Your task to perform on an android device: set the timer Image 0: 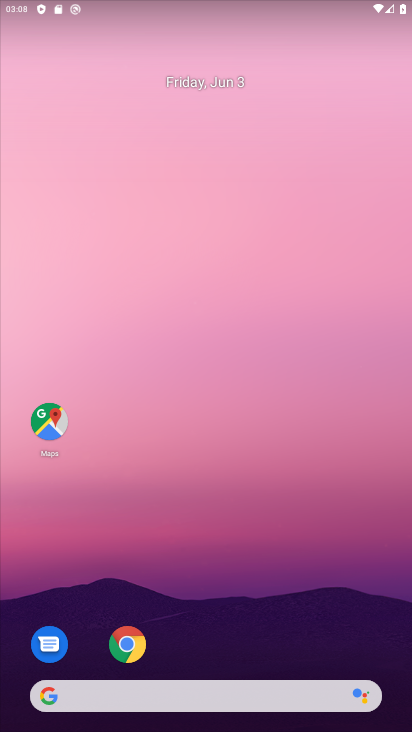
Step 0: drag from (354, 589) to (270, 172)
Your task to perform on an android device: set the timer Image 1: 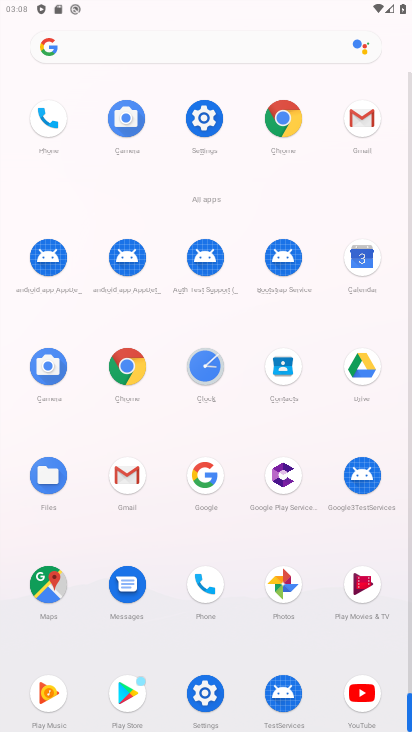
Step 1: click (224, 369)
Your task to perform on an android device: set the timer Image 2: 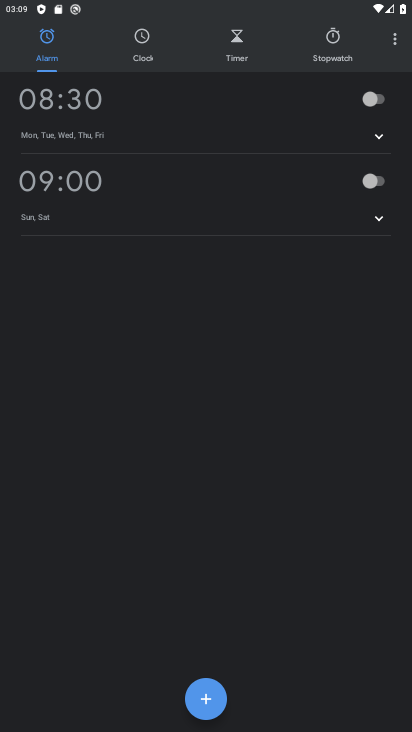
Step 2: click (393, 38)
Your task to perform on an android device: set the timer Image 3: 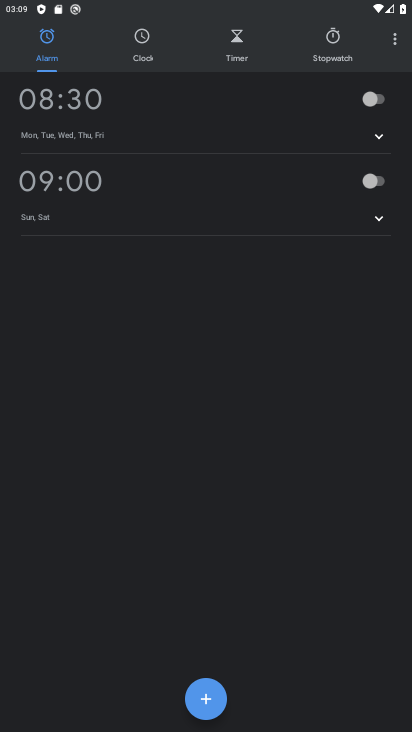
Step 3: click (233, 46)
Your task to perform on an android device: set the timer Image 4: 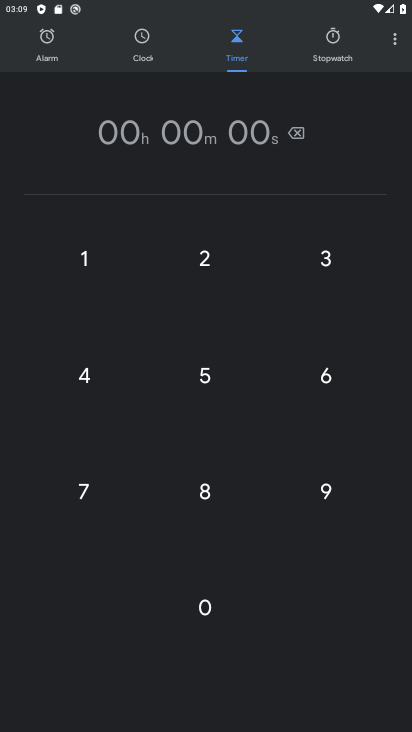
Step 4: click (205, 462)
Your task to perform on an android device: set the timer Image 5: 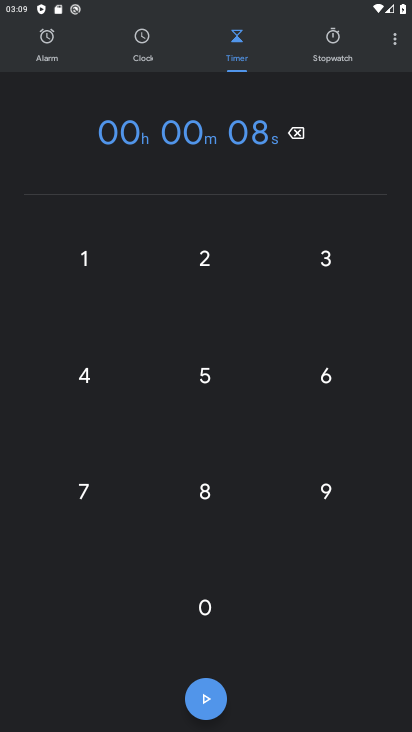
Step 5: click (210, 671)
Your task to perform on an android device: set the timer Image 6: 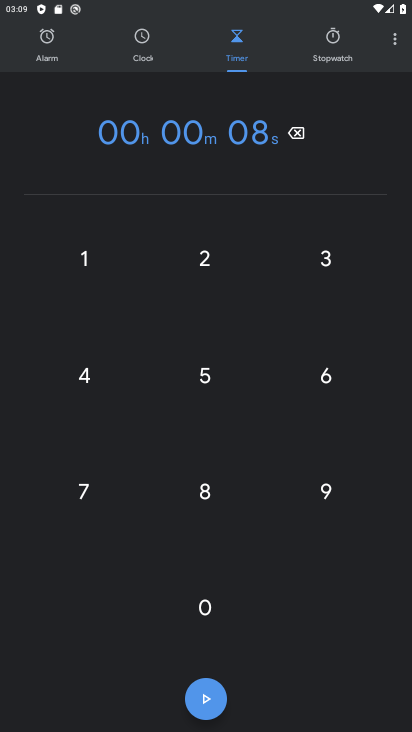
Step 6: click (201, 698)
Your task to perform on an android device: set the timer Image 7: 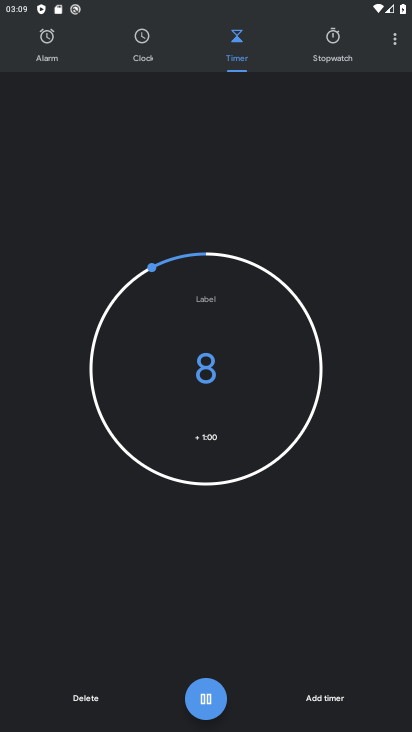
Step 7: task complete